Your task to perform on an android device: change the clock display to analog Image 0: 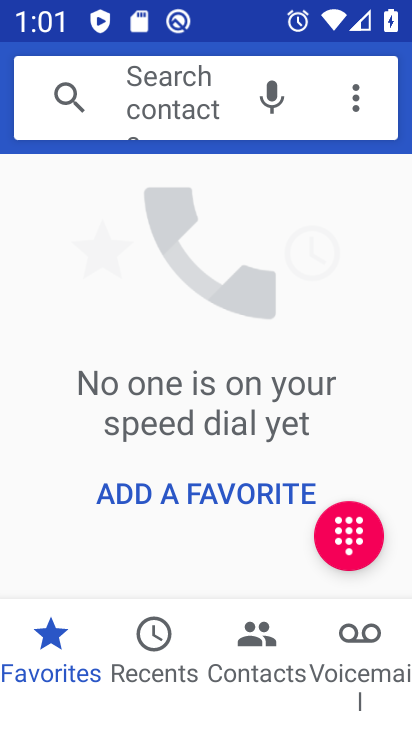
Step 0: press home button
Your task to perform on an android device: change the clock display to analog Image 1: 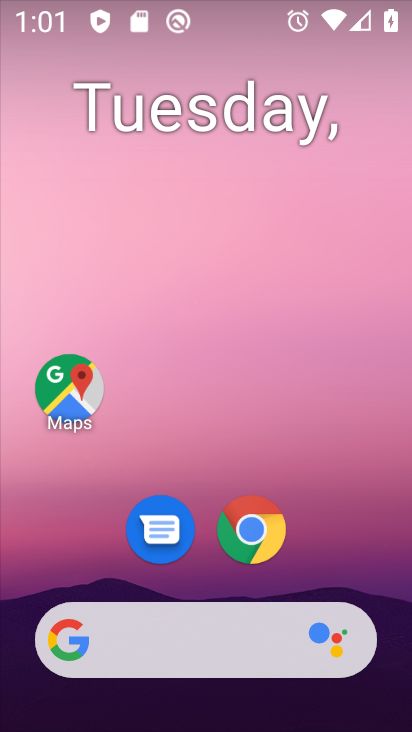
Step 1: drag from (131, 592) to (73, 12)
Your task to perform on an android device: change the clock display to analog Image 2: 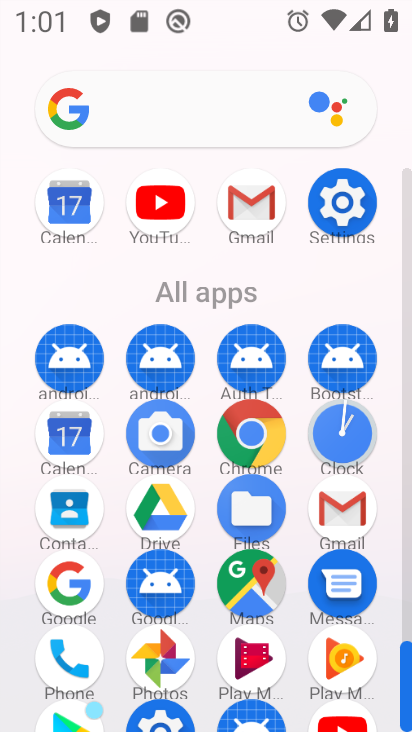
Step 2: click (337, 425)
Your task to perform on an android device: change the clock display to analog Image 3: 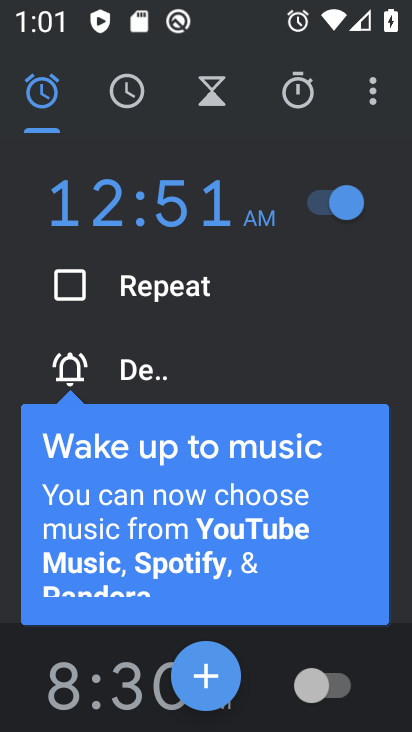
Step 3: click (360, 109)
Your task to perform on an android device: change the clock display to analog Image 4: 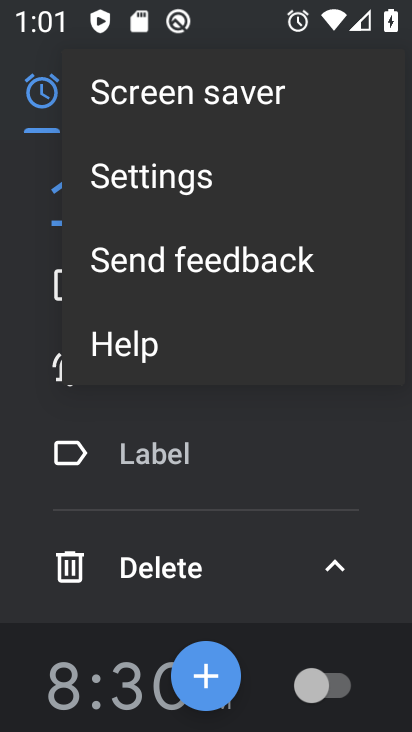
Step 4: click (143, 200)
Your task to perform on an android device: change the clock display to analog Image 5: 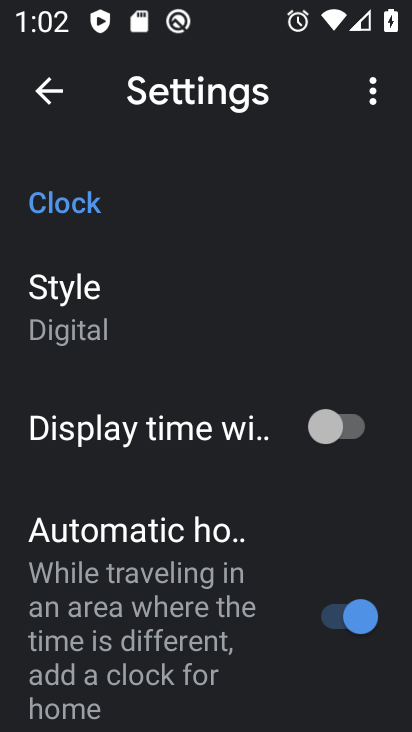
Step 5: click (70, 267)
Your task to perform on an android device: change the clock display to analog Image 6: 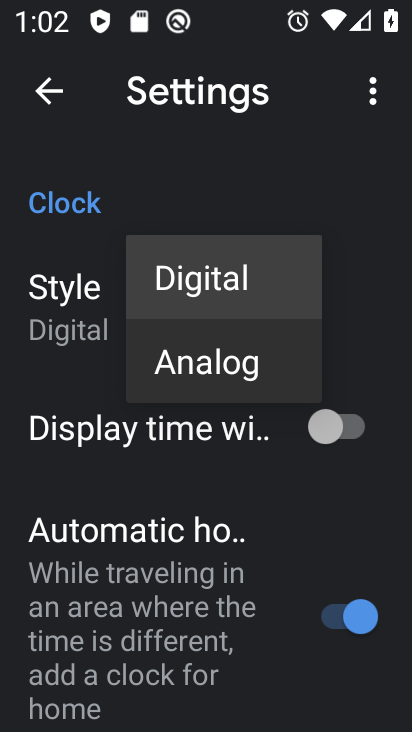
Step 6: click (203, 351)
Your task to perform on an android device: change the clock display to analog Image 7: 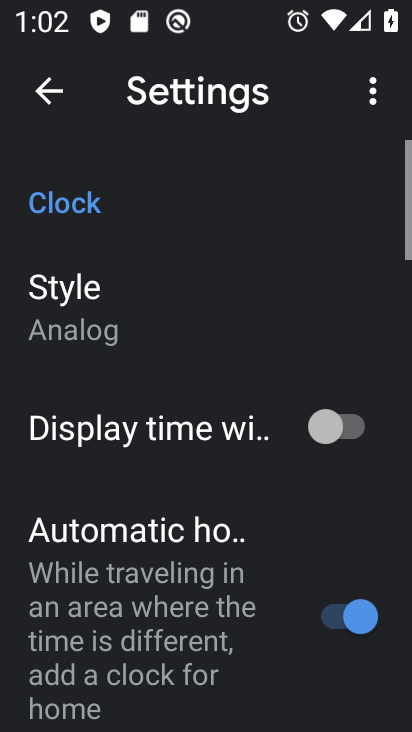
Step 7: task complete